Your task to perform on an android device: turn off data saver in the chrome app Image 0: 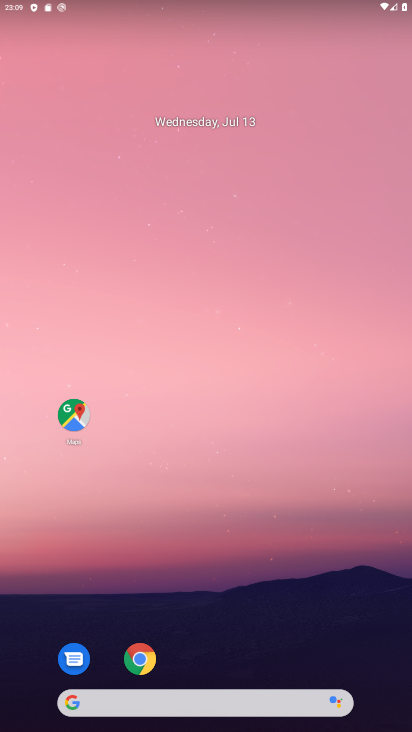
Step 0: click (138, 661)
Your task to perform on an android device: turn off data saver in the chrome app Image 1: 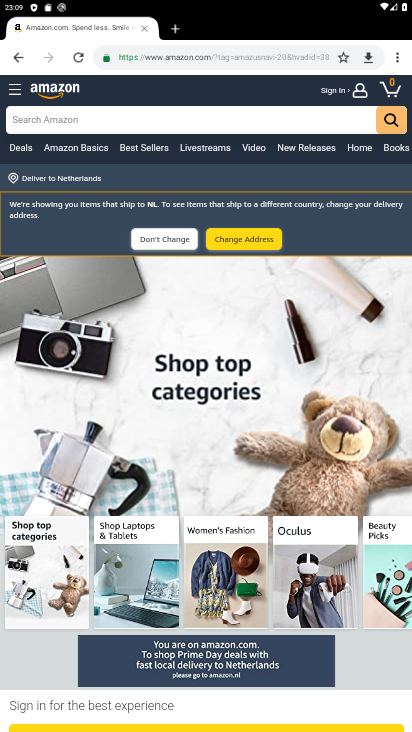
Step 1: click (395, 61)
Your task to perform on an android device: turn off data saver in the chrome app Image 2: 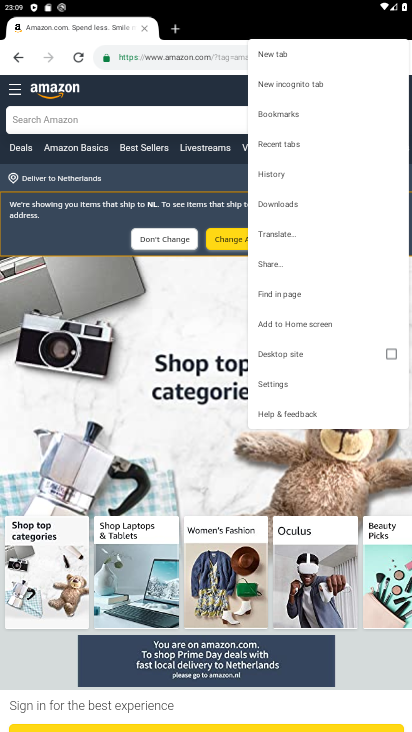
Step 2: click (282, 383)
Your task to perform on an android device: turn off data saver in the chrome app Image 3: 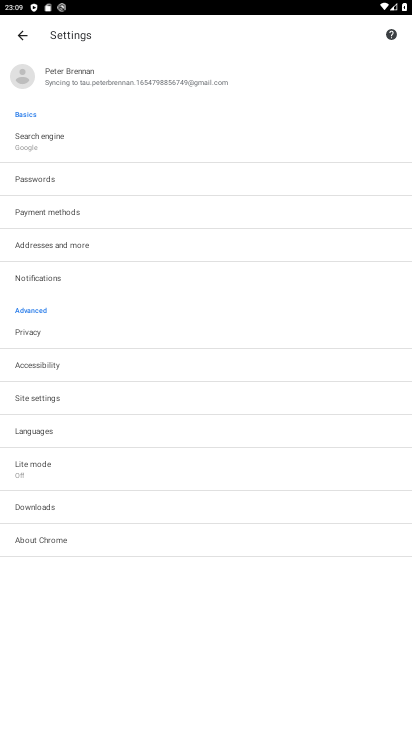
Step 3: click (29, 464)
Your task to perform on an android device: turn off data saver in the chrome app Image 4: 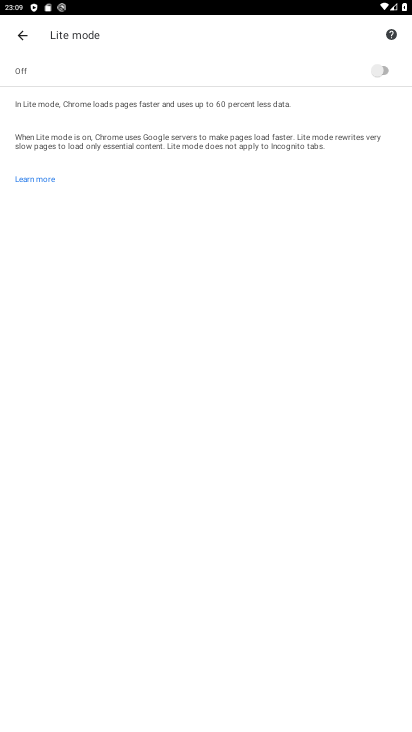
Step 4: task complete